Your task to perform on an android device: Search for seafood restaurants on Google Maps Image 0: 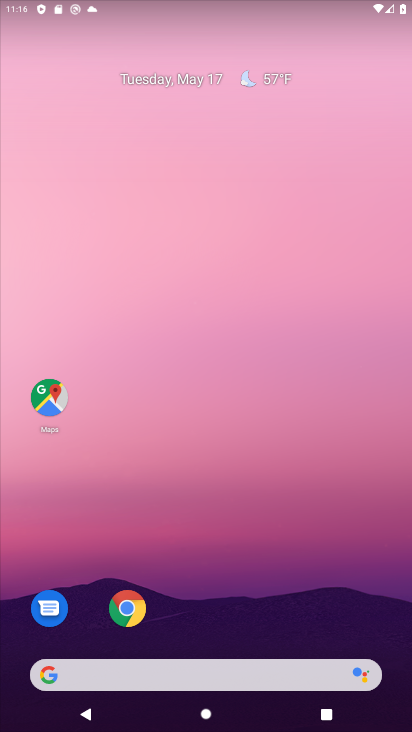
Step 0: click (36, 402)
Your task to perform on an android device: Search for seafood restaurants on Google Maps Image 1: 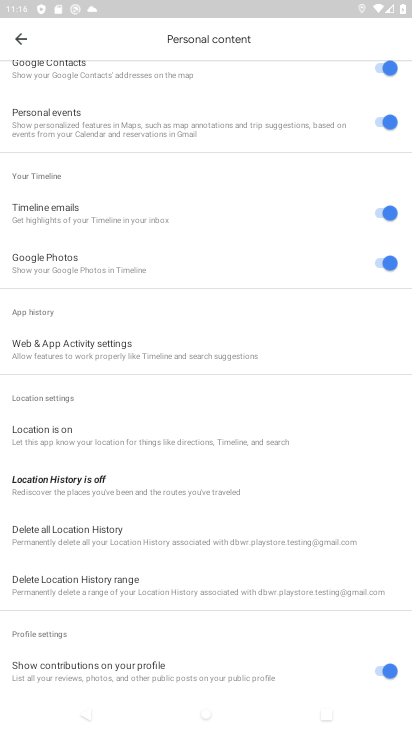
Step 1: click (18, 38)
Your task to perform on an android device: Search for seafood restaurants on Google Maps Image 2: 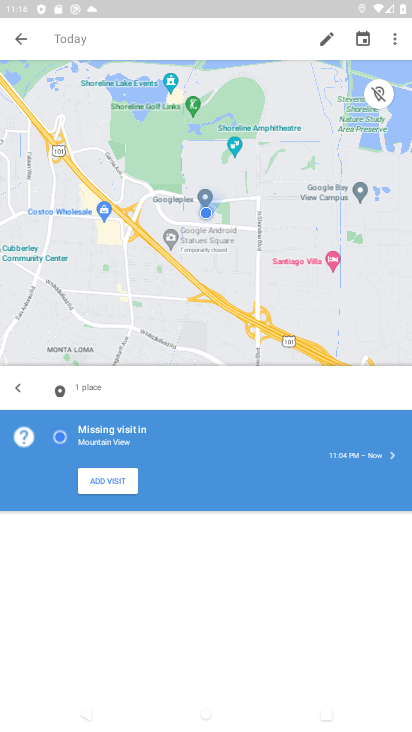
Step 2: click (15, 37)
Your task to perform on an android device: Search for seafood restaurants on Google Maps Image 3: 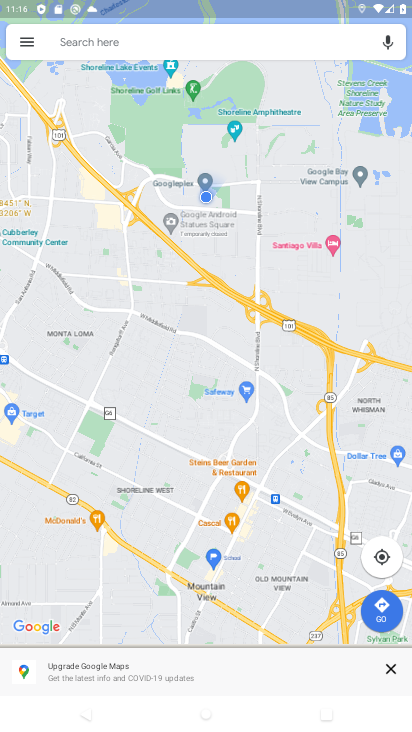
Step 3: click (124, 46)
Your task to perform on an android device: Search for seafood restaurants on Google Maps Image 4: 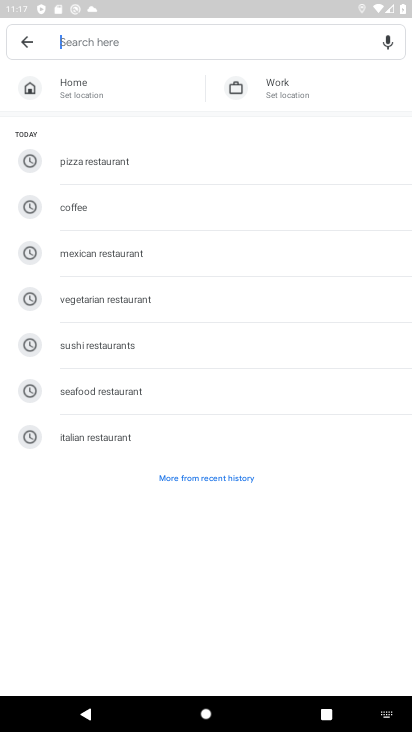
Step 4: type "seafood restaurants"
Your task to perform on an android device: Search for seafood restaurants on Google Maps Image 5: 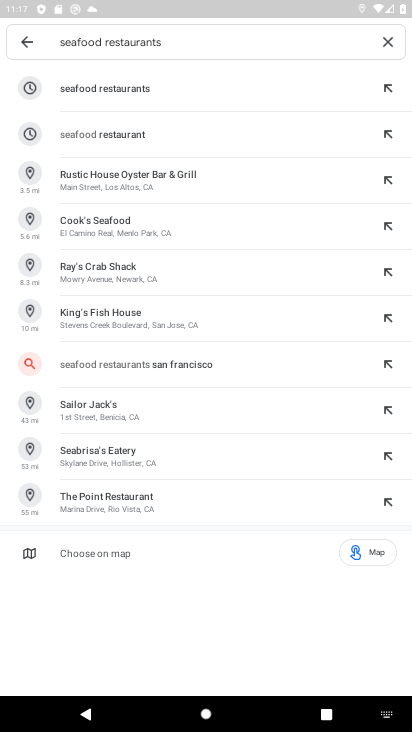
Step 5: click (79, 93)
Your task to perform on an android device: Search for seafood restaurants on Google Maps Image 6: 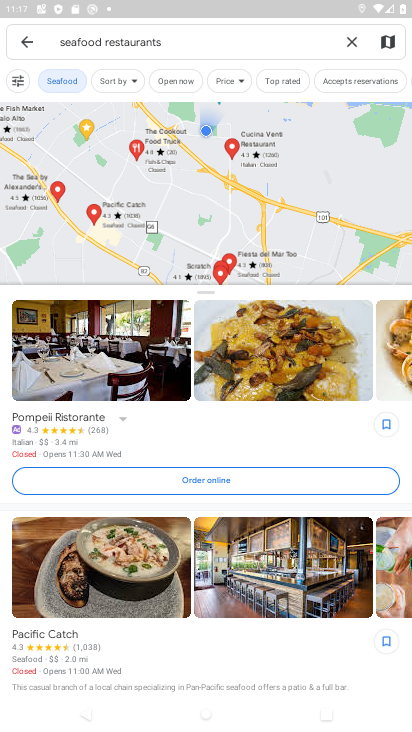
Step 6: task complete